Your task to perform on an android device: open the mobile data screen to see how much data has been used Image 0: 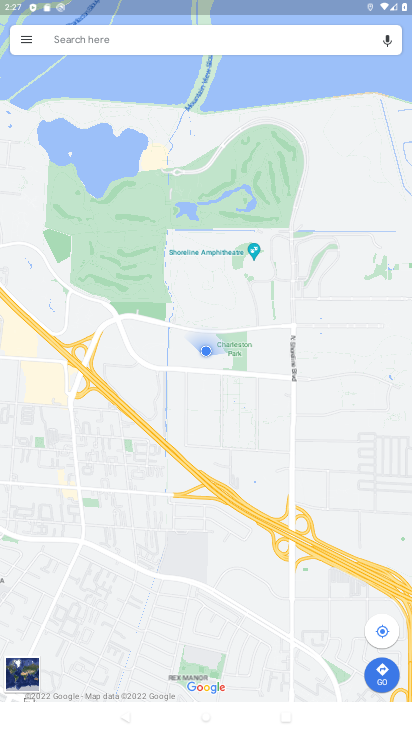
Step 0: press back button
Your task to perform on an android device: open the mobile data screen to see how much data has been used Image 1: 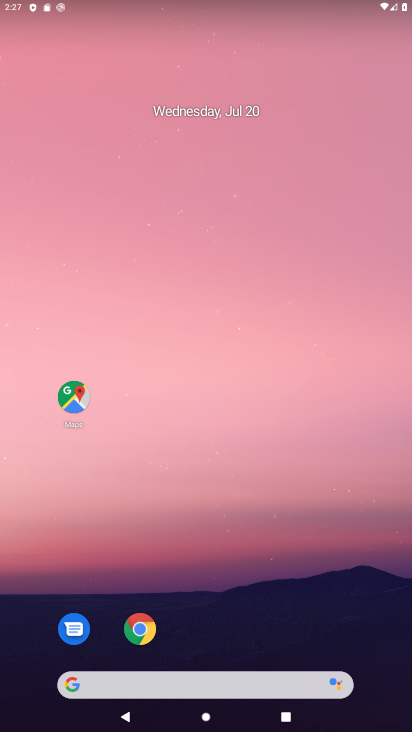
Step 1: drag from (193, 665) to (236, 149)
Your task to perform on an android device: open the mobile data screen to see how much data has been used Image 2: 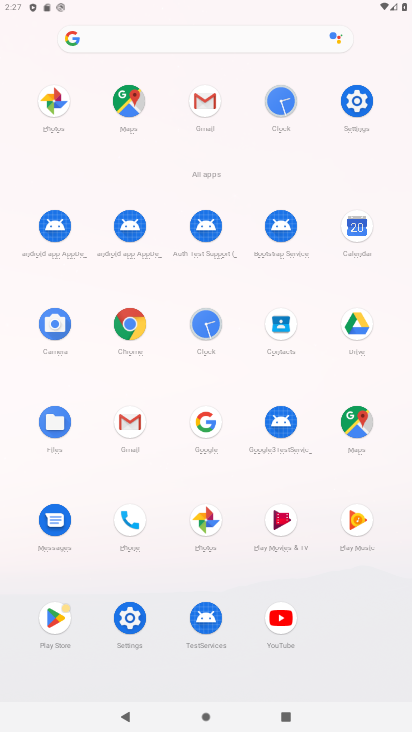
Step 2: click (127, 622)
Your task to perform on an android device: open the mobile data screen to see how much data has been used Image 3: 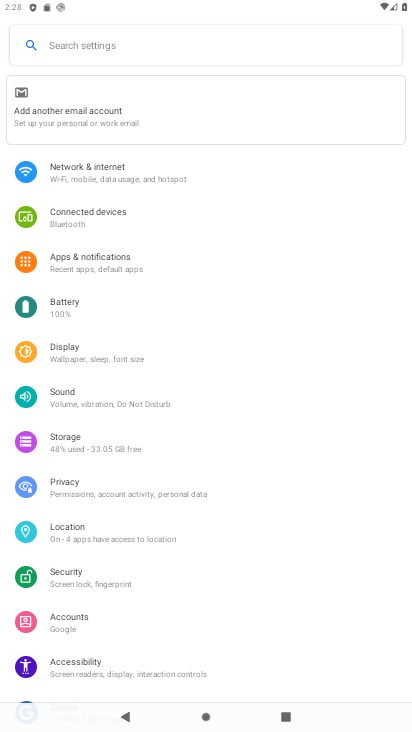
Step 3: click (170, 165)
Your task to perform on an android device: open the mobile data screen to see how much data has been used Image 4: 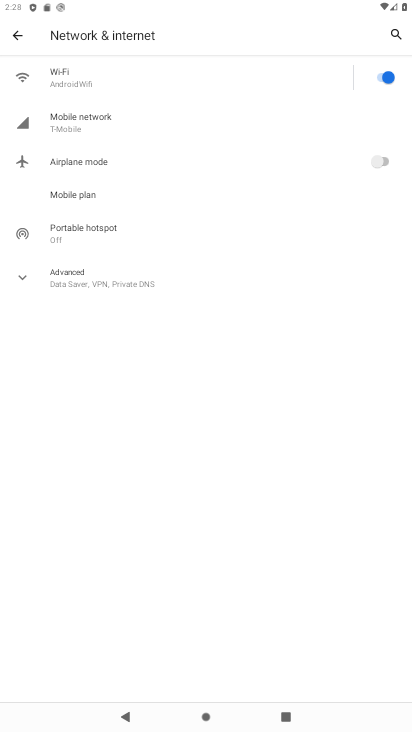
Step 4: click (126, 123)
Your task to perform on an android device: open the mobile data screen to see how much data has been used Image 5: 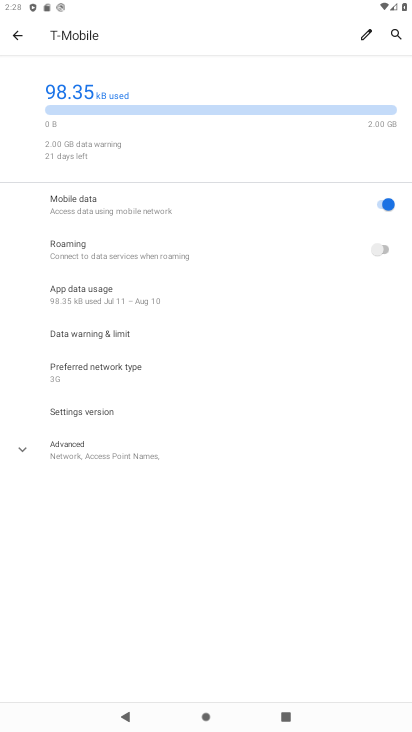
Step 5: task complete